Your task to perform on an android device: add a label to a message in the gmail app Image 0: 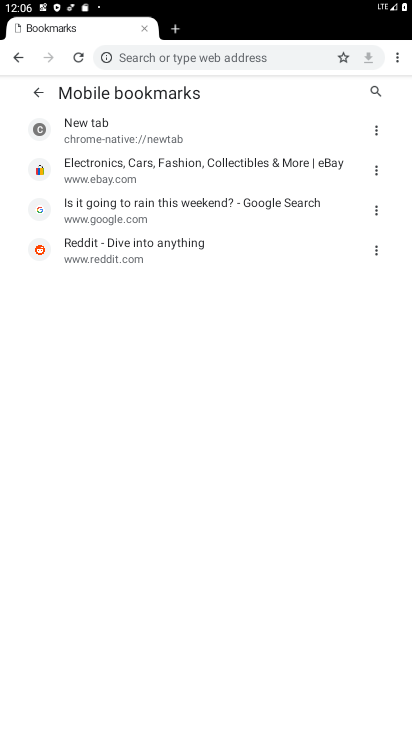
Step 0: press home button
Your task to perform on an android device: add a label to a message in the gmail app Image 1: 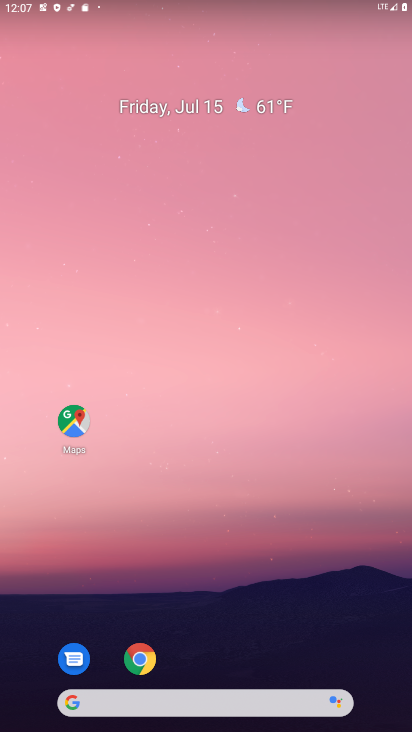
Step 1: drag from (200, 704) to (253, 139)
Your task to perform on an android device: add a label to a message in the gmail app Image 2: 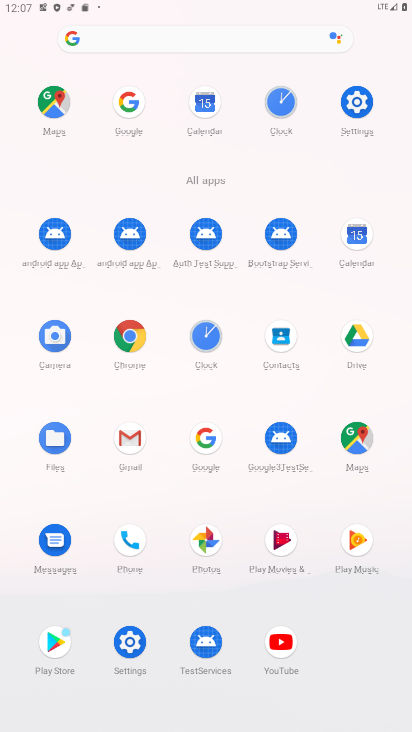
Step 2: click (127, 436)
Your task to perform on an android device: add a label to a message in the gmail app Image 3: 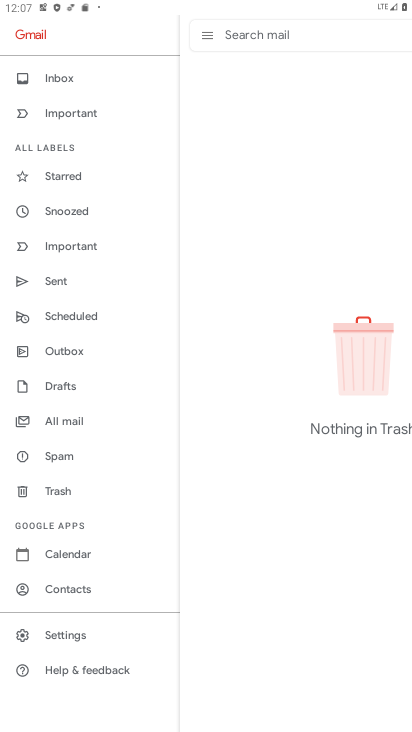
Step 3: click (52, 414)
Your task to perform on an android device: add a label to a message in the gmail app Image 4: 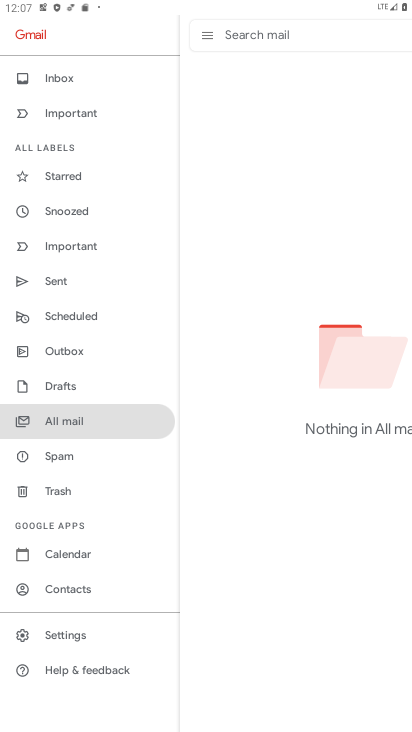
Step 4: click (64, 179)
Your task to perform on an android device: add a label to a message in the gmail app Image 5: 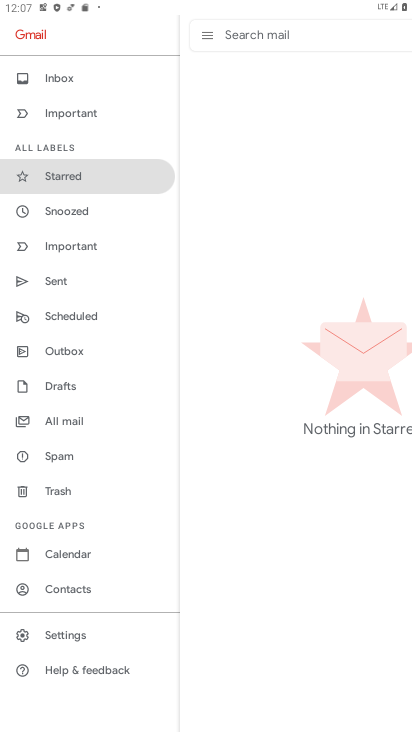
Step 5: click (66, 209)
Your task to perform on an android device: add a label to a message in the gmail app Image 6: 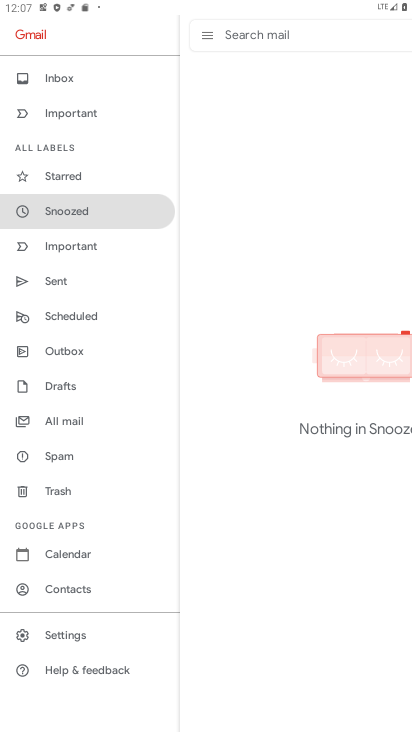
Step 6: click (67, 242)
Your task to perform on an android device: add a label to a message in the gmail app Image 7: 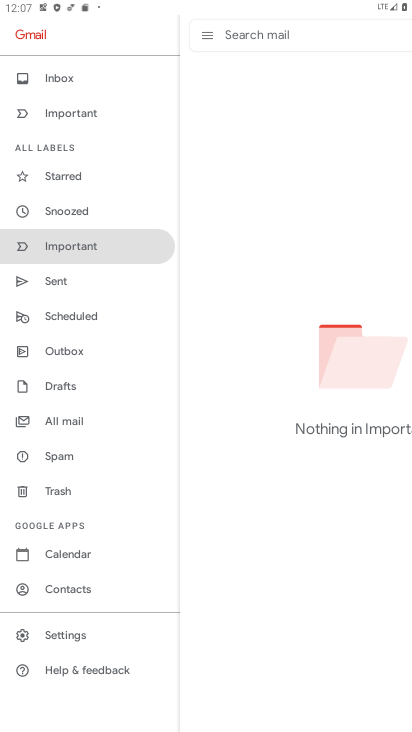
Step 7: click (56, 295)
Your task to perform on an android device: add a label to a message in the gmail app Image 8: 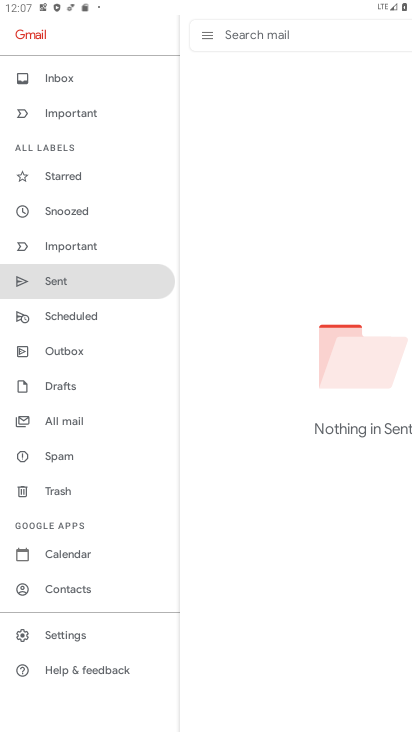
Step 8: click (60, 319)
Your task to perform on an android device: add a label to a message in the gmail app Image 9: 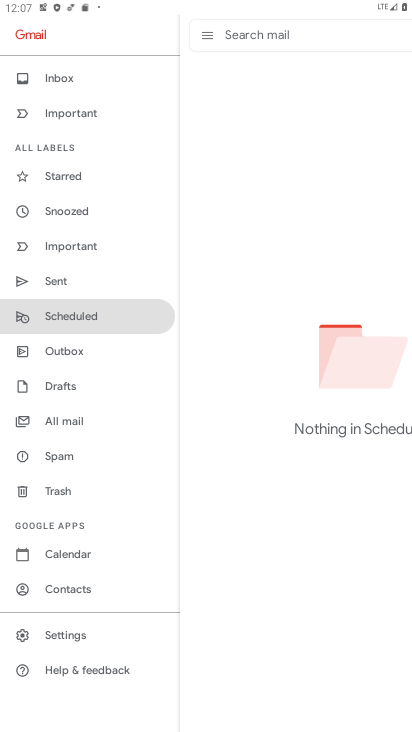
Step 9: click (63, 351)
Your task to perform on an android device: add a label to a message in the gmail app Image 10: 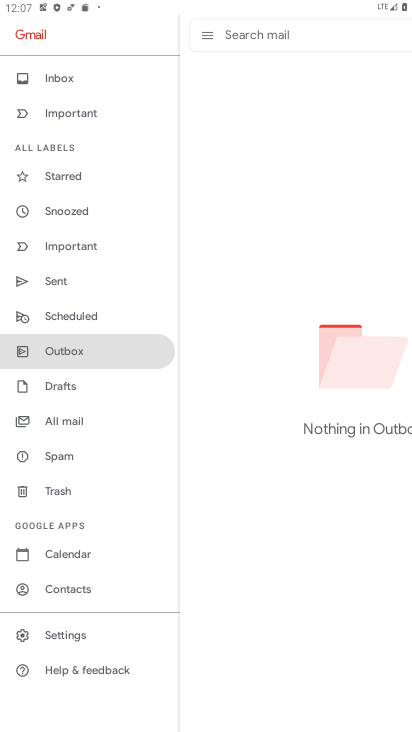
Step 10: click (64, 388)
Your task to perform on an android device: add a label to a message in the gmail app Image 11: 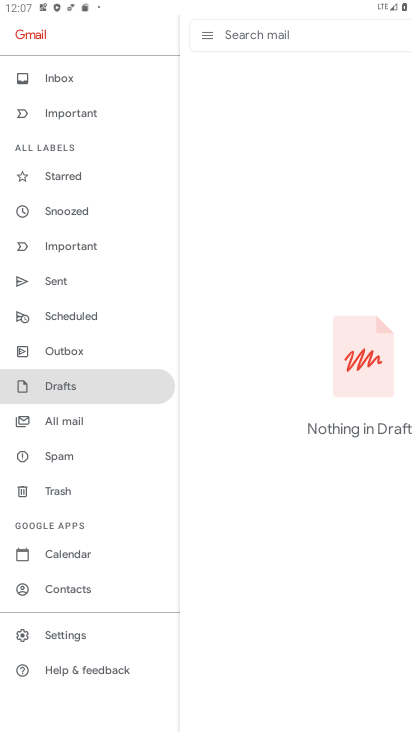
Step 11: click (62, 423)
Your task to perform on an android device: add a label to a message in the gmail app Image 12: 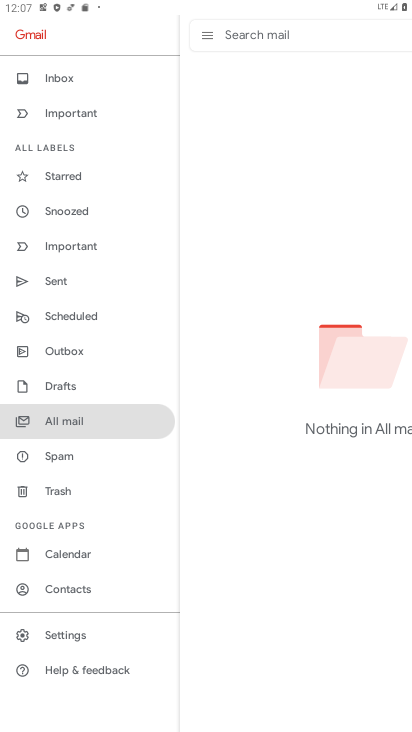
Step 12: click (62, 459)
Your task to perform on an android device: add a label to a message in the gmail app Image 13: 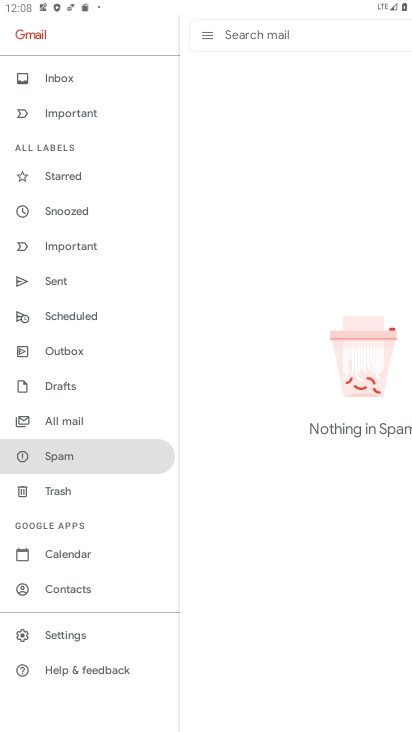
Step 13: click (63, 493)
Your task to perform on an android device: add a label to a message in the gmail app Image 14: 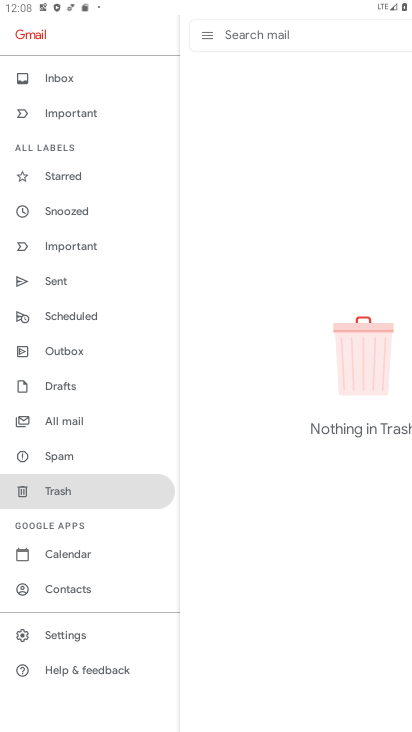
Step 14: task complete